Your task to perform on an android device: check out phone information Image 0: 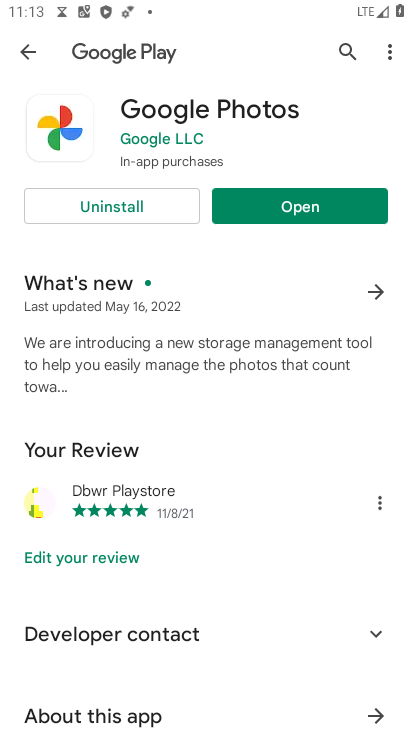
Step 0: press back button
Your task to perform on an android device: check out phone information Image 1: 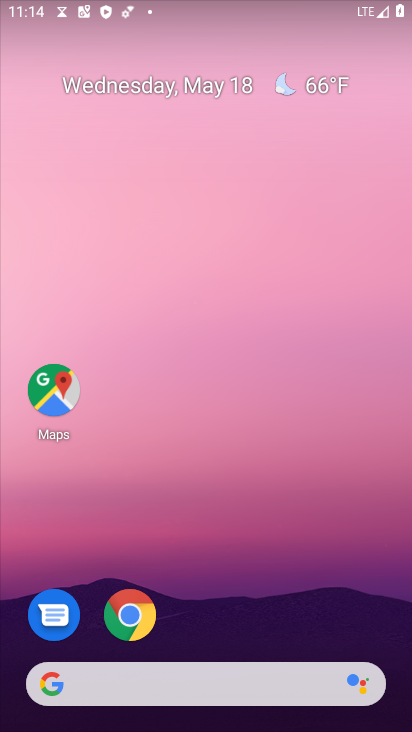
Step 1: drag from (253, 443) to (236, 11)
Your task to perform on an android device: check out phone information Image 2: 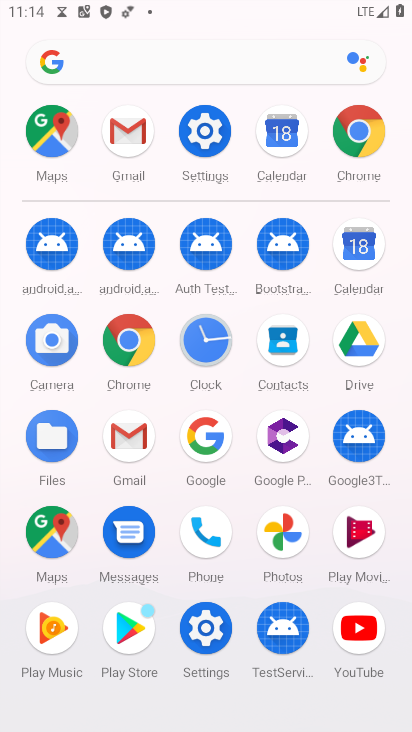
Step 2: click (205, 130)
Your task to perform on an android device: check out phone information Image 3: 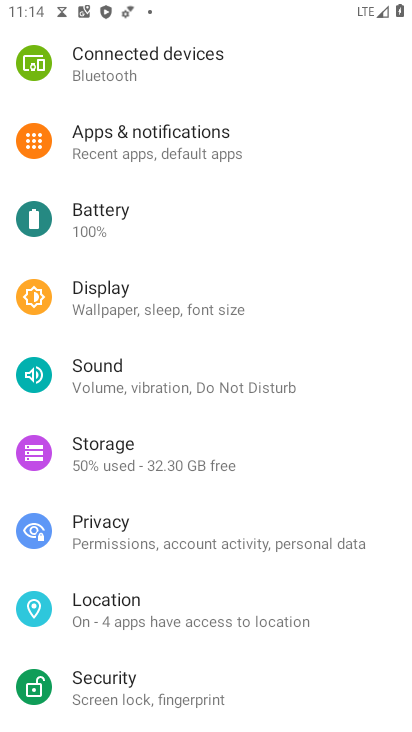
Step 3: drag from (244, 599) to (244, 131)
Your task to perform on an android device: check out phone information Image 4: 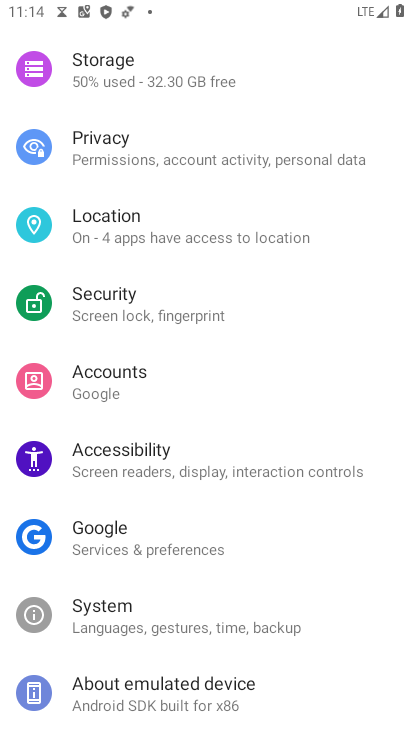
Step 4: drag from (271, 589) to (277, 169)
Your task to perform on an android device: check out phone information Image 5: 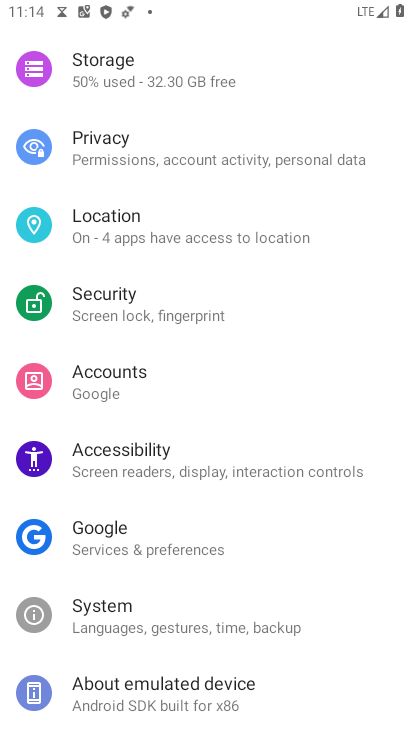
Step 5: click (190, 686)
Your task to perform on an android device: check out phone information Image 6: 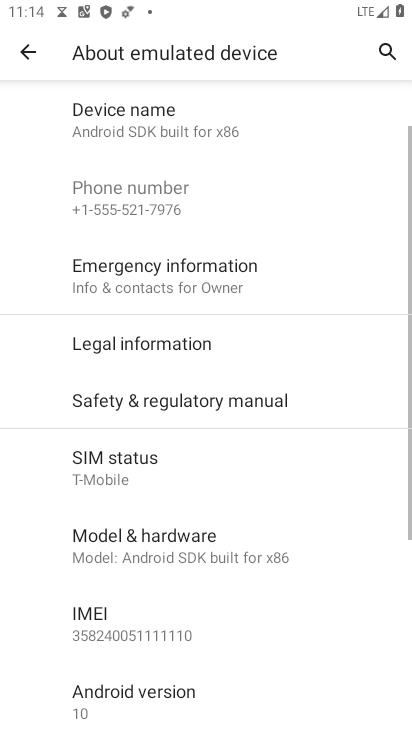
Step 6: task complete